Your task to perform on an android device: See recent photos Image 0: 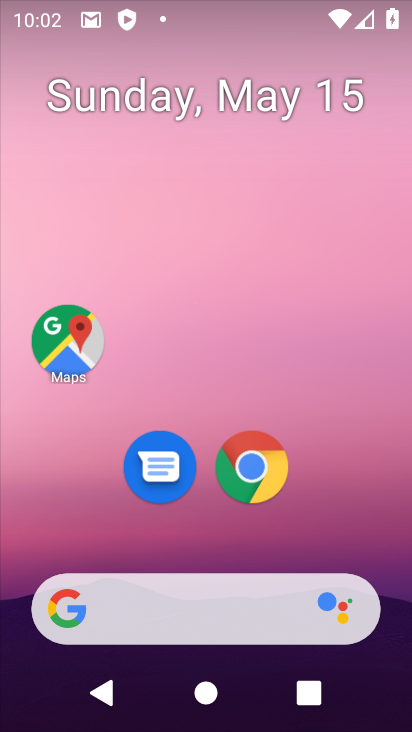
Step 0: drag from (224, 535) to (275, 108)
Your task to perform on an android device: See recent photos Image 1: 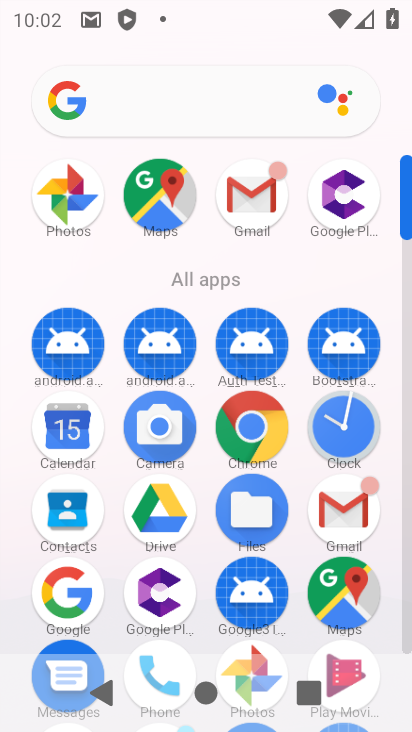
Step 1: click (249, 646)
Your task to perform on an android device: See recent photos Image 2: 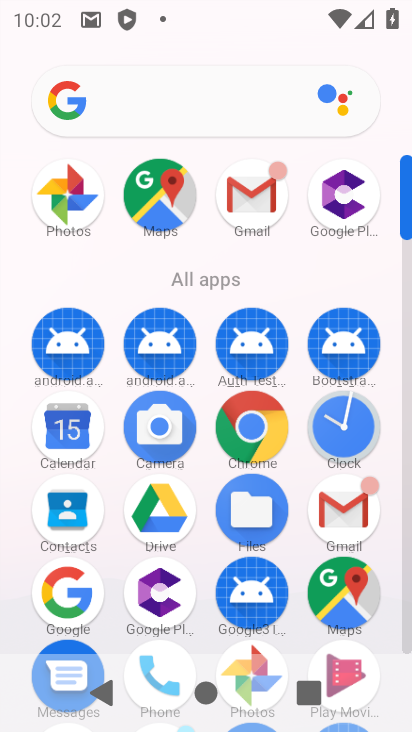
Step 2: click (249, 646)
Your task to perform on an android device: See recent photos Image 3: 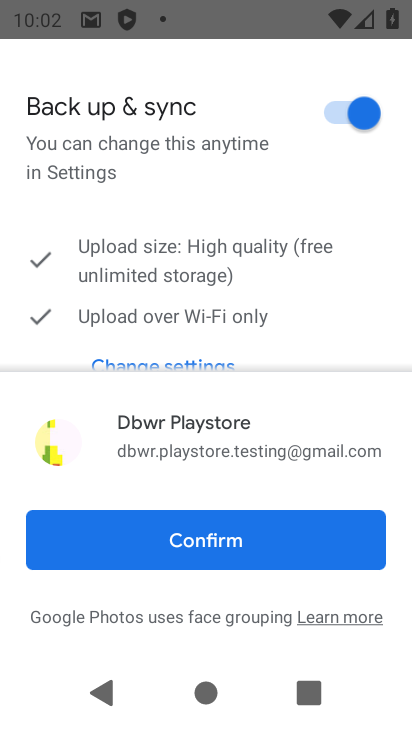
Step 3: click (224, 545)
Your task to perform on an android device: See recent photos Image 4: 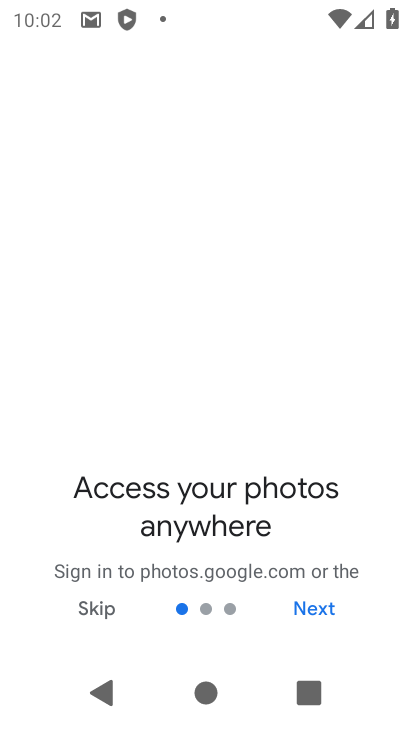
Step 4: click (104, 599)
Your task to perform on an android device: See recent photos Image 5: 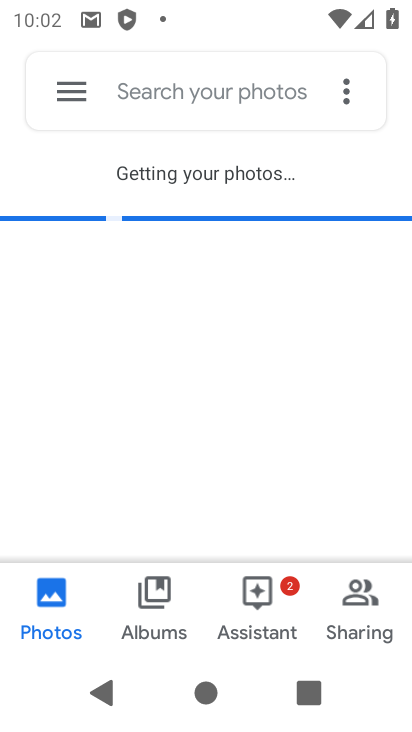
Step 5: click (179, 599)
Your task to perform on an android device: See recent photos Image 6: 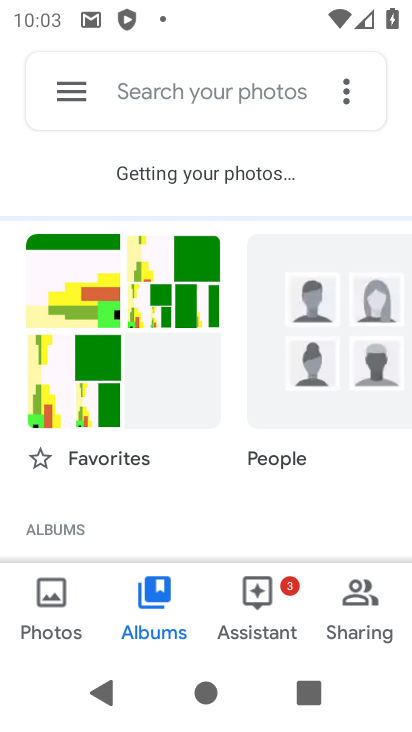
Step 6: click (61, 269)
Your task to perform on an android device: See recent photos Image 7: 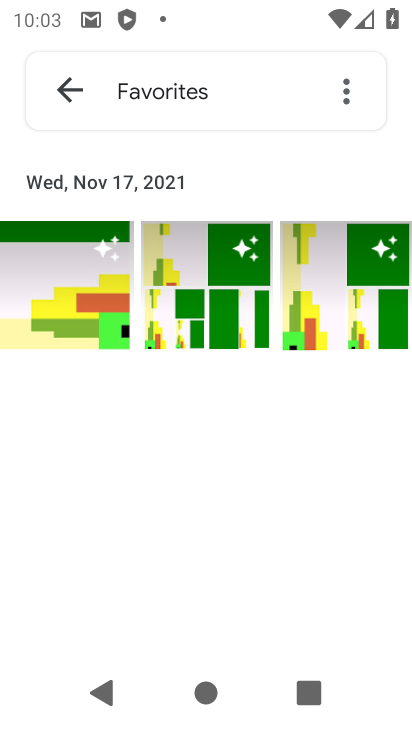
Step 7: click (58, 267)
Your task to perform on an android device: See recent photos Image 8: 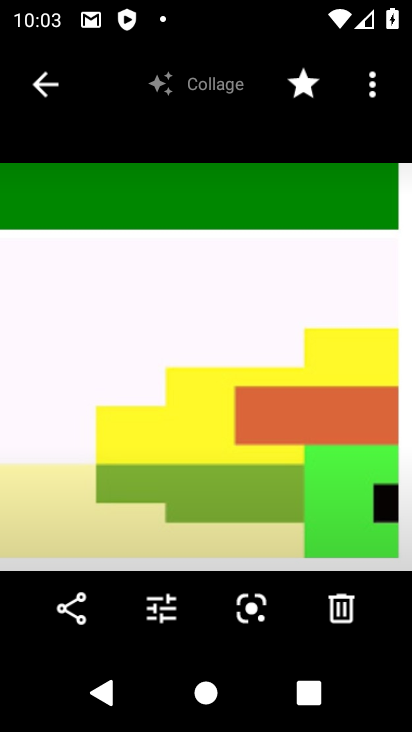
Step 8: task complete